Your task to perform on an android device: change the upload size in google photos Image 0: 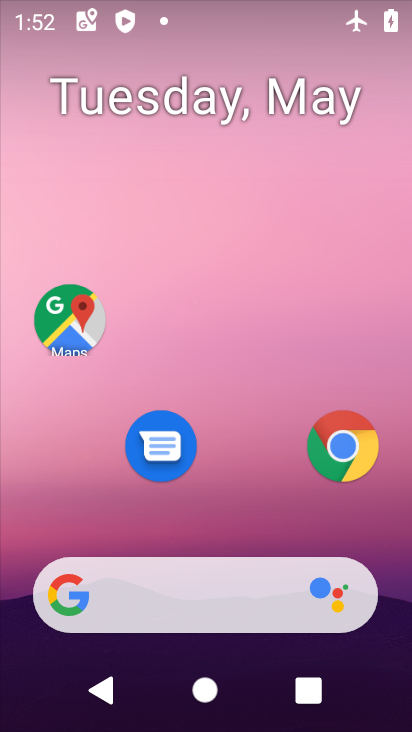
Step 0: drag from (228, 540) to (169, 75)
Your task to perform on an android device: change the upload size in google photos Image 1: 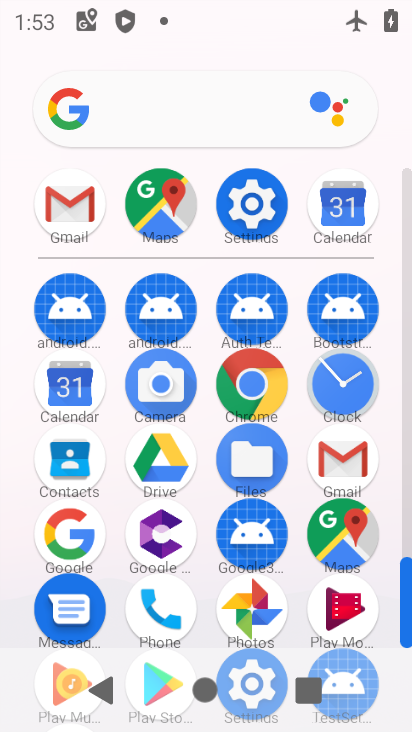
Step 1: click (264, 591)
Your task to perform on an android device: change the upload size in google photos Image 2: 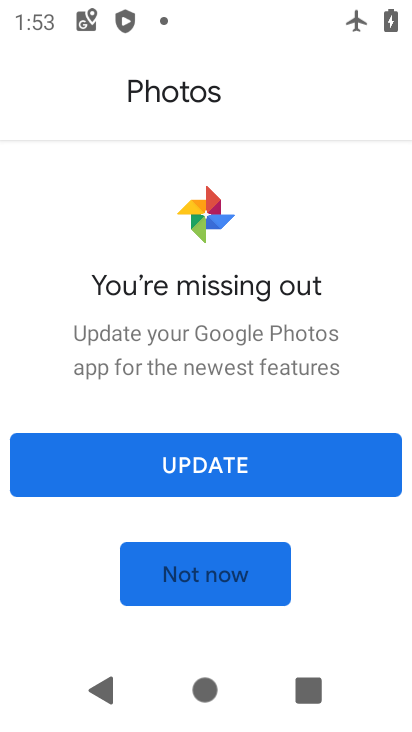
Step 2: click (264, 588)
Your task to perform on an android device: change the upload size in google photos Image 3: 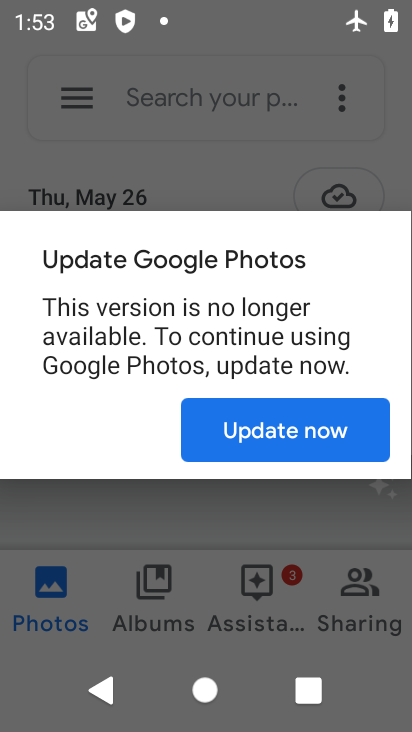
Step 3: click (254, 448)
Your task to perform on an android device: change the upload size in google photos Image 4: 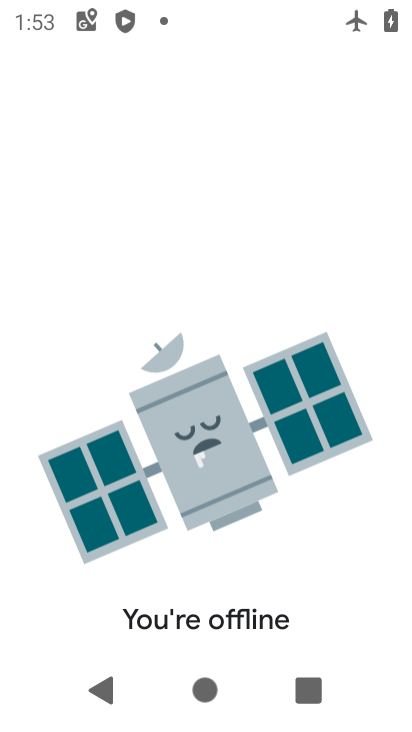
Step 4: task complete